Your task to perform on an android device: Show me popular games on the Play Store Image 0: 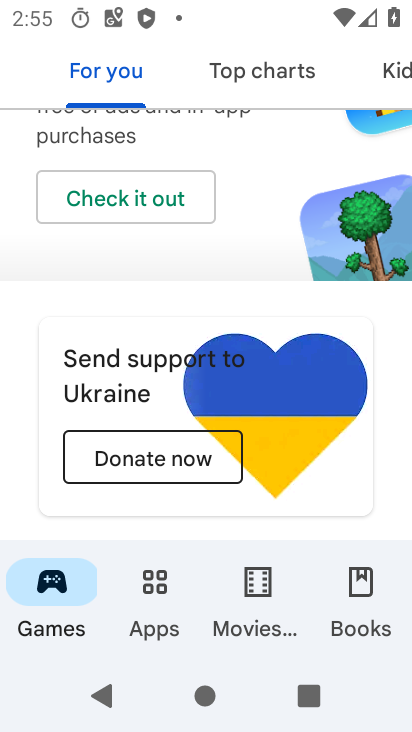
Step 0: press home button
Your task to perform on an android device: Show me popular games on the Play Store Image 1: 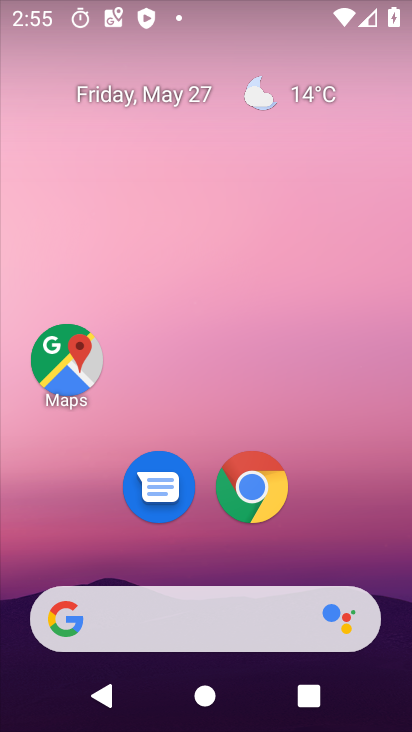
Step 1: drag from (319, 487) to (292, 67)
Your task to perform on an android device: Show me popular games on the Play Store Image 2: 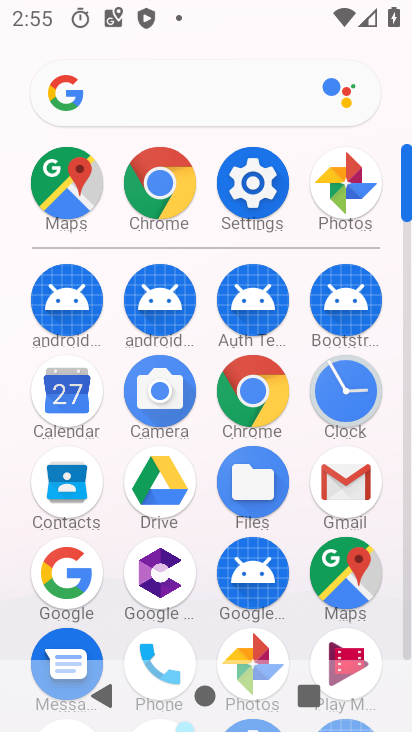
Step 2: drag from (304, 521) to (282, 150)
Your task to perform on an android device: Show me popular games on the Play Store Image 3: 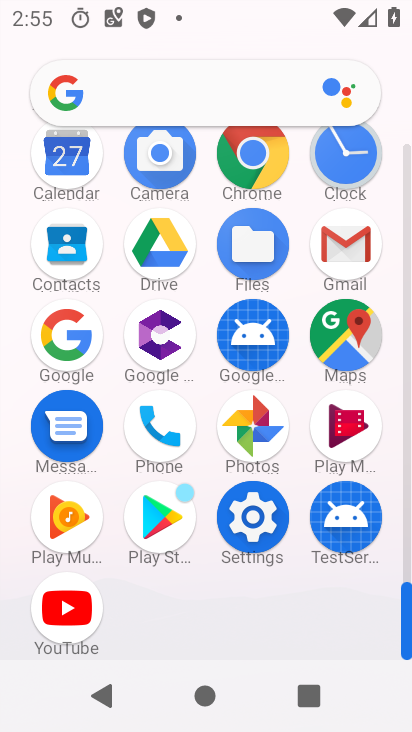
Step 3: click (152, 505)
Your task to perform on an android device: Show me popular games on the Play Store Image 4: 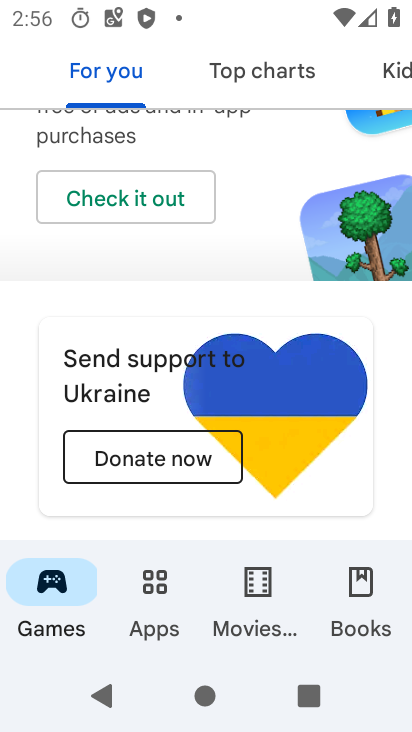
Step 4: task complete